Your task to perform on an android device: show emergency info Image 0: 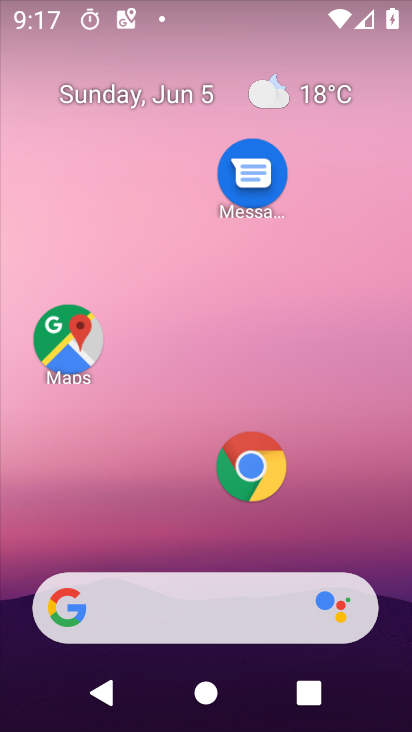
Step 0: drag from (202, 519) to (112, 218)
Your task to perform on an android device: show emergency info Image 1: 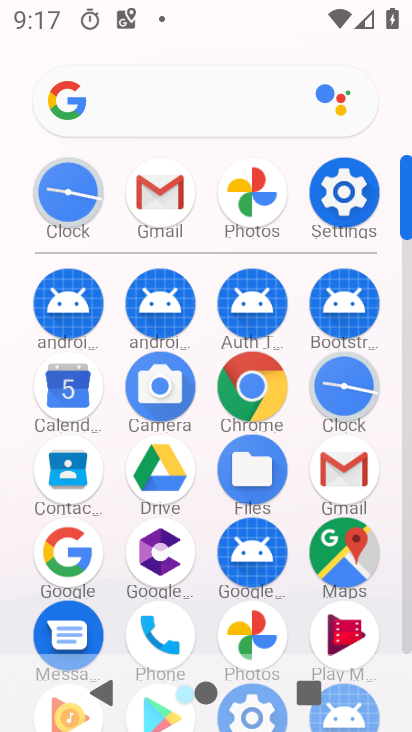
Step 1: click (338, 213)
Your task to perform on an android device: show emergency info Image 2: 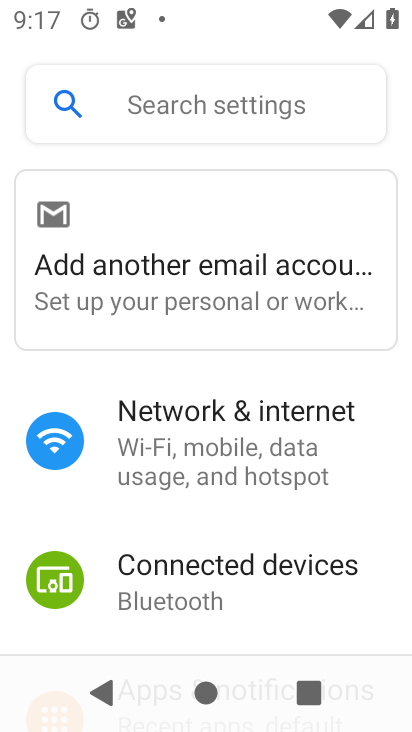
Step 2: drag from (200, 601) to (22, 294)
Your task to perform on an android device: show emergency info Image 3: 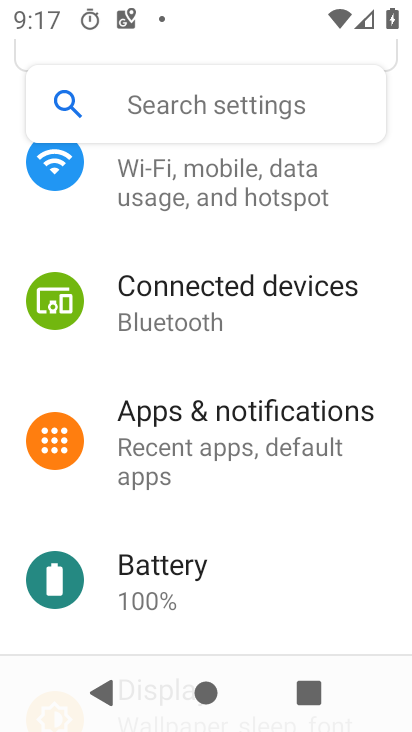
Step 3: drag from (180, 567) to (165, 47)
Your task to perform on an android device: show emergency info Image 4: 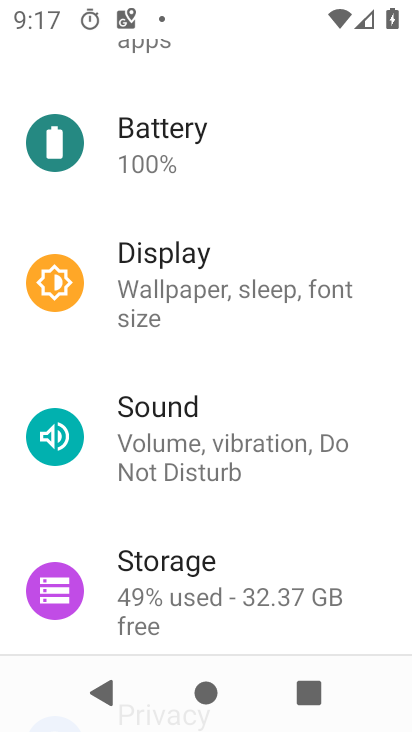
Step 4: drag from (203, 576) to (283, 16)
Your task to perform on an android device: show emergency info Image 5: 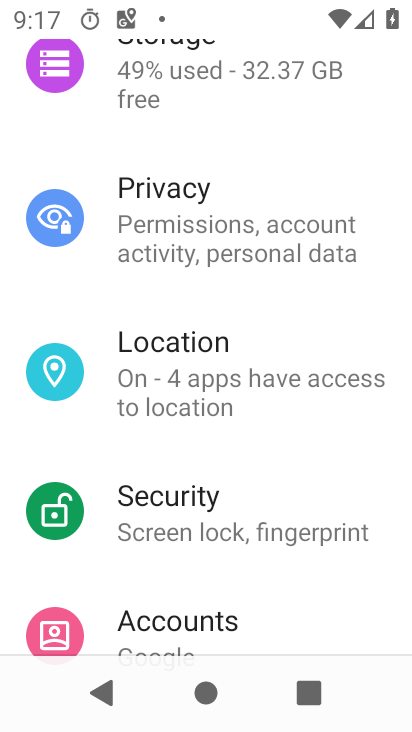
Step 5: drag from (211, 568) to (276, 331)
Your task to perform on an android device: show emergency info Image 6: 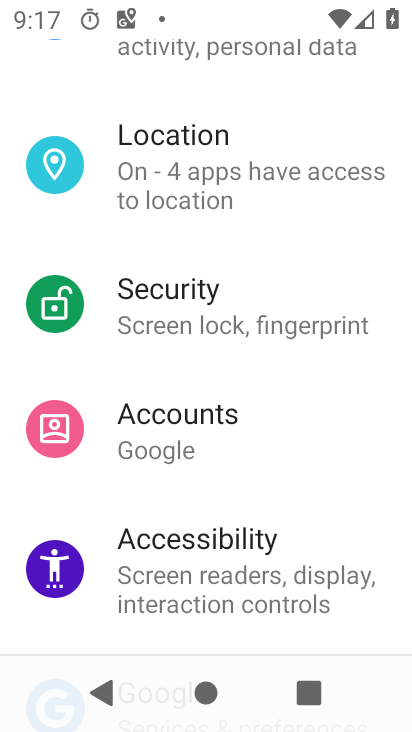
Step 6: drag from (264, 626) to (315, 303)
Your task to perform on an android device: show emergency info Image 7: 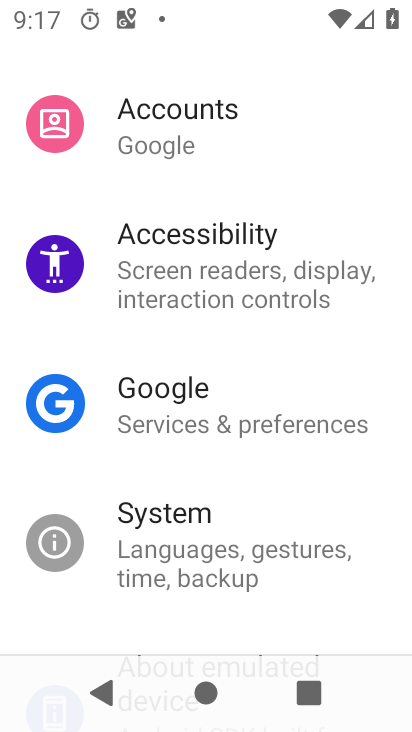
Step 7: drag from (84, 558) to (207, 309)
Your task to perform on an android device: show emergency info Image 8: 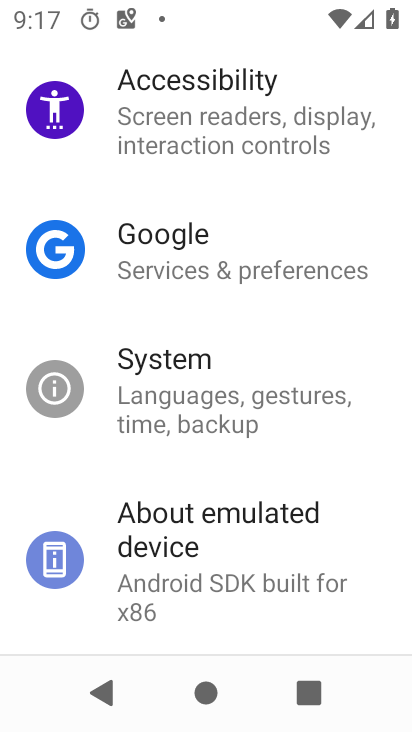
Step 8: click (207, 531)
Your task to perform on an android device: show emergency info Image 9: 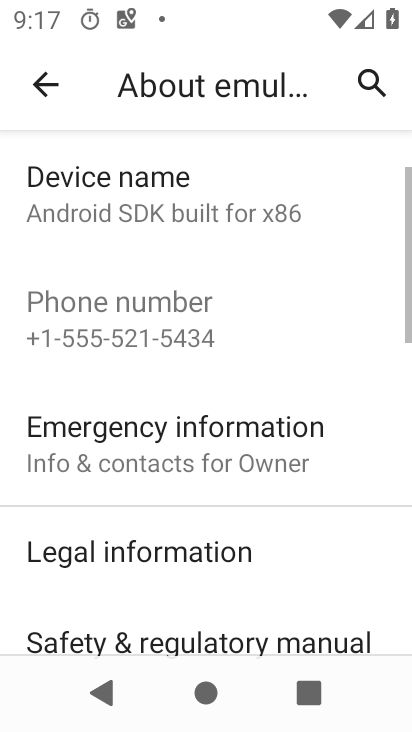
Step 9: drag from (198, 466) to (248, 201)
Your task to perform on an android device: show emergency info Image 10: 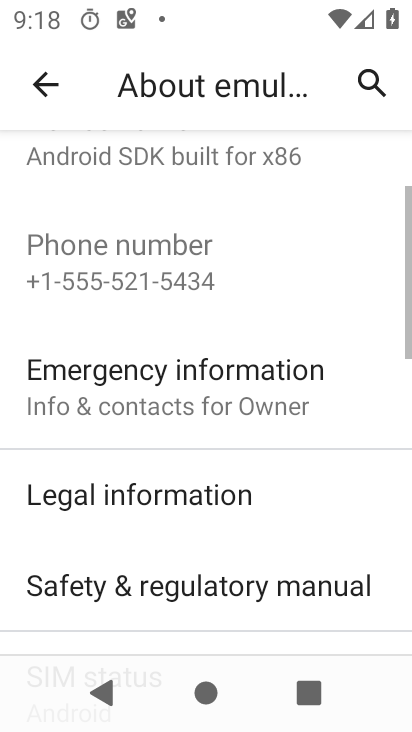
Step 10: drag from (203, 570) to (238, 93)
Your task to perform on an android device: show emergency info Image 11: 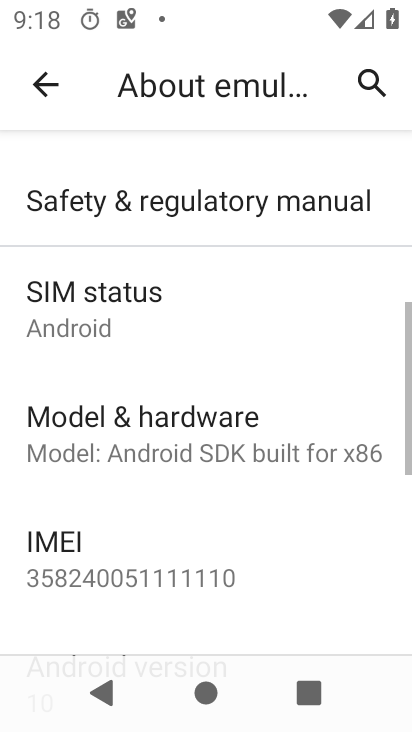
Step 11: drag from (224, 267) to (326, 691)
Your task to perform on an android device: show emergency info Image 12: 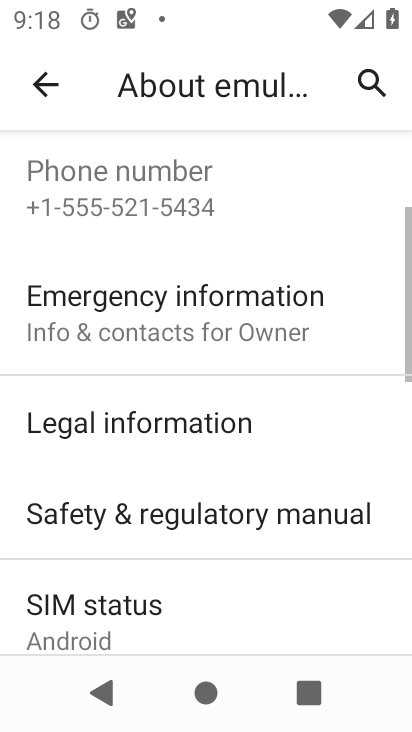
Step 12: click (197, 342)
Your task to perform on an android device: show emergency info Image 13: 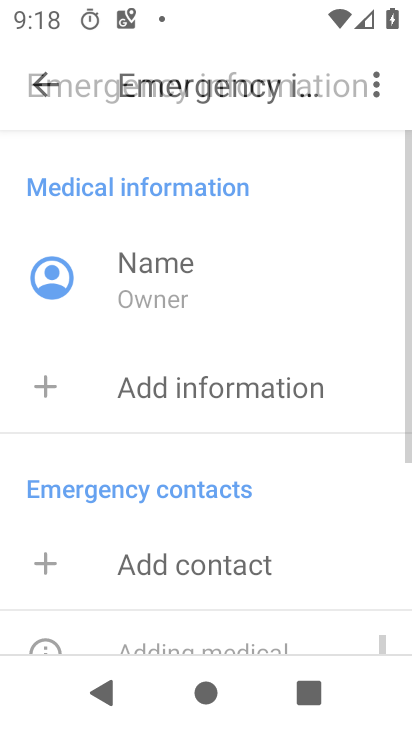
Step 13: task complete